Your task to perform on an android device: Open Youtube and go to "Your channel" Image 0: 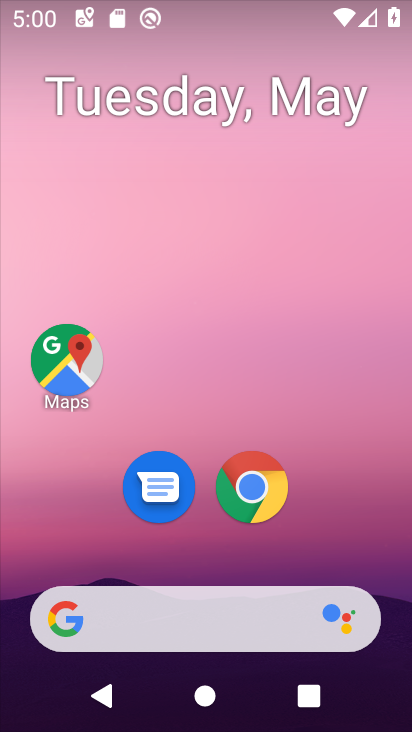
Step 0: drag from (305, 550) to (272, 183)
Your task to perform on an android device: Open Youtube and go to "Your channel" Image 1: 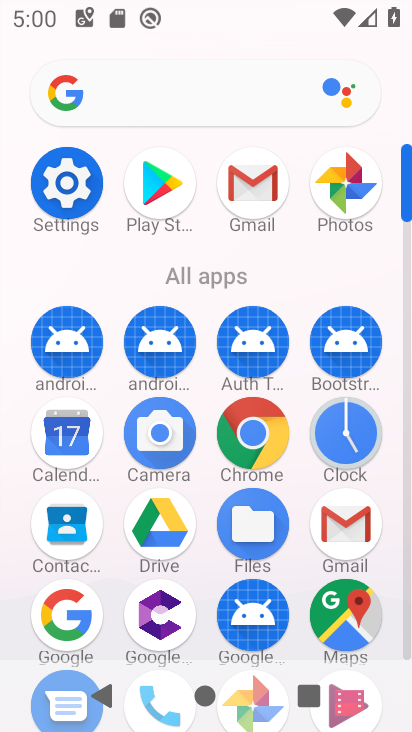
Step 1: click (408, 630)
Your task to perform on an android device: Open Youtube and go to "Your channel" Image 2: 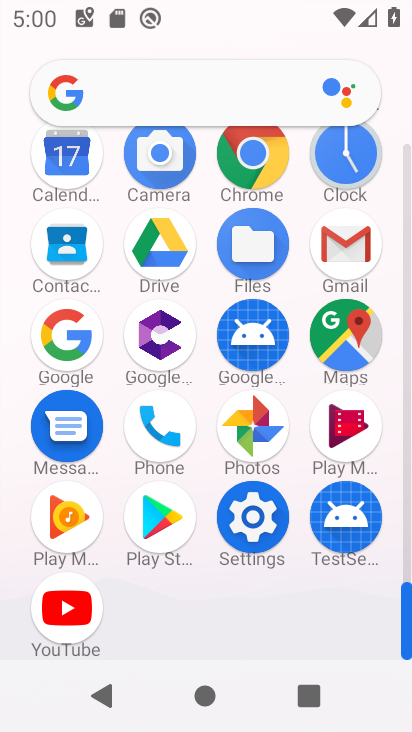
Step 2: click (53, 602)
Your task to perform on an android device: Open Youtube and go to "Your channel" Image 3: 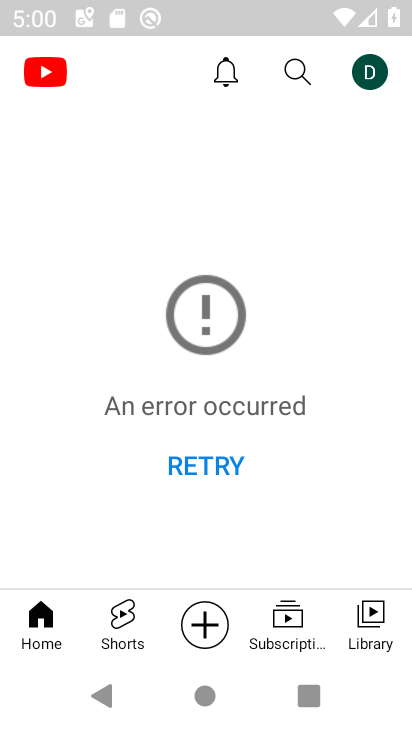
Step 3: click (351, 624)
Your task to perform on an android device: Open Youtube and go to "Your channel" Image 4: 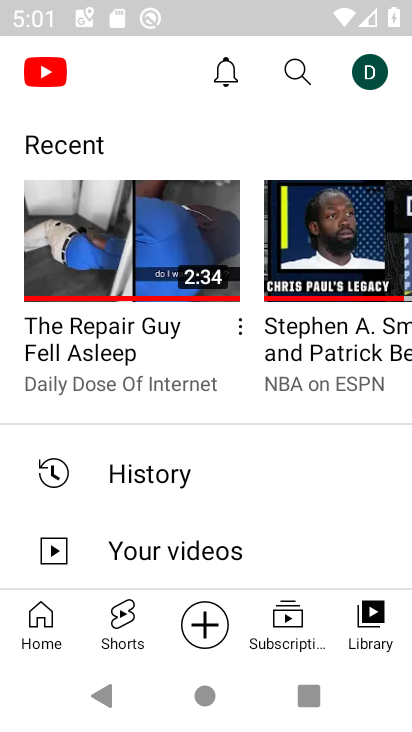
Step 4: click (364, 75)
Your task to perform on an android device: Open Youtube and go to "Your channel" Image 5: 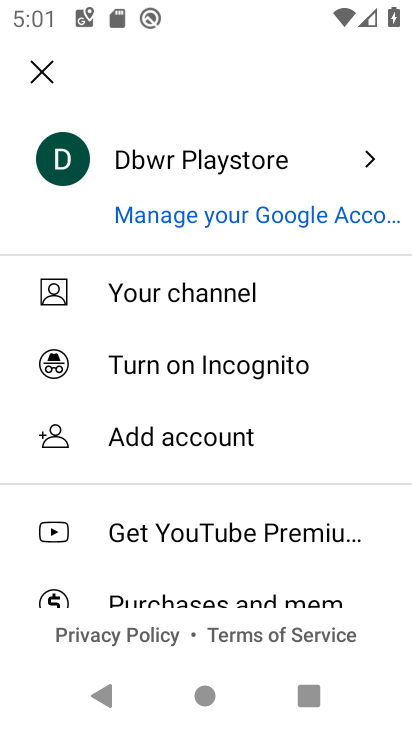
Step 5: click (256, 313)
Your task to perform on an android device: Open Youtube and go to "Your channel" Image 6: 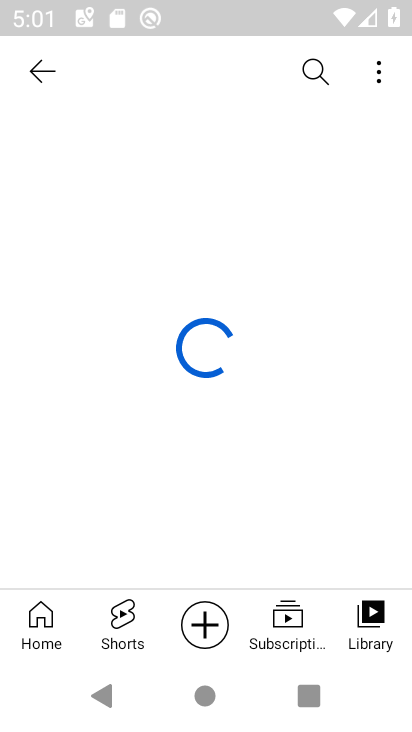
Step 6: task complete